Your task to perform on an android device: Go to battery settings Image 0: 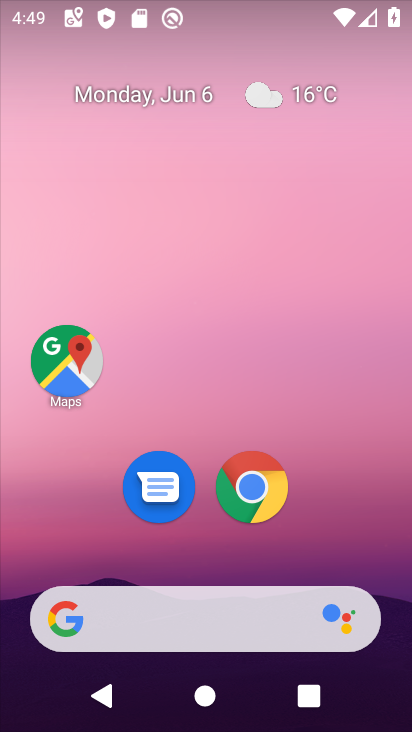
Step 0: drag from (314, 502) to (287, 10)
Your task to perform on an android device: Go to battery settings Image 1: 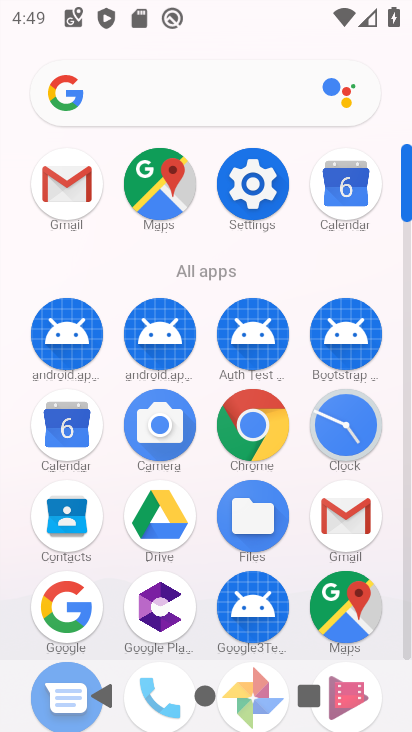
Step 1: click (254, 168)
Your task to perform on an android device: Go to battery settings Image 2: 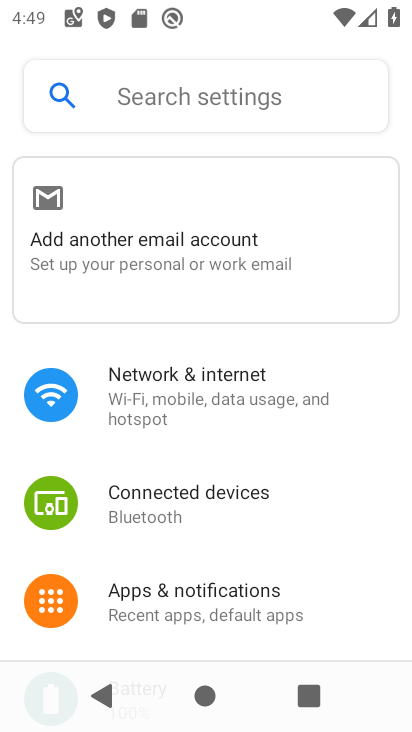
Step 2: drag from (189, 538) to (217, 72)
Your task to perform on an android device: Go to battery settings Image 3: 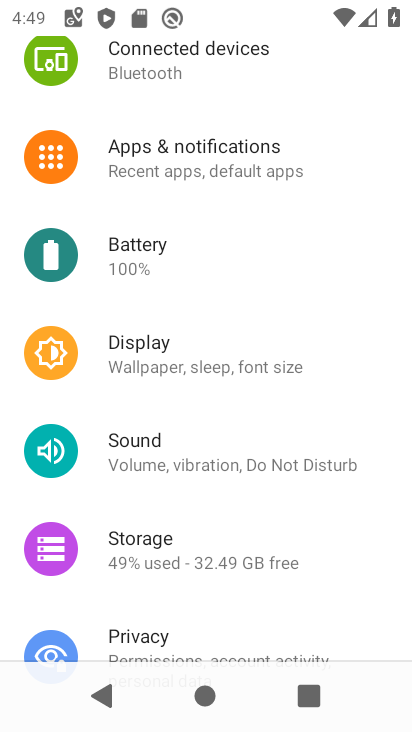
Step 3: click (182, 252)
Your task to perform on an android device: Go to battery settings Image 4: 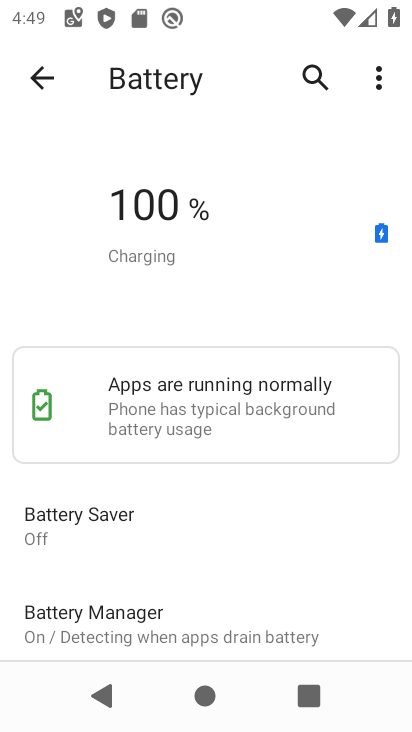
Step 4: task complete